Your task to perform on an android device: toggle pop-ups in chrome Image 0: 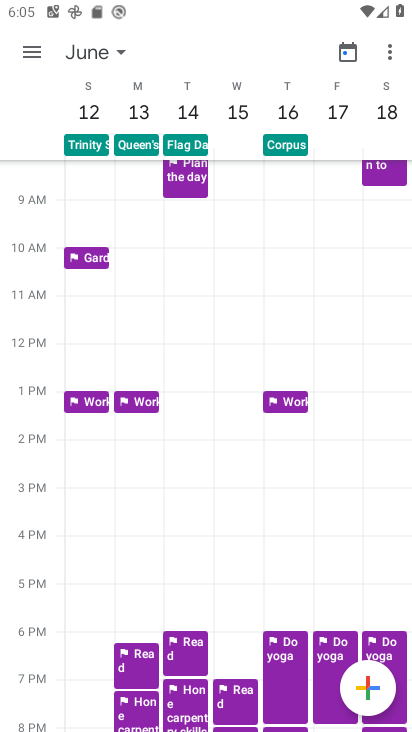
Step 0: press home button
Your task to perform on an android device: toggle pop-ups in chrome Image 1: 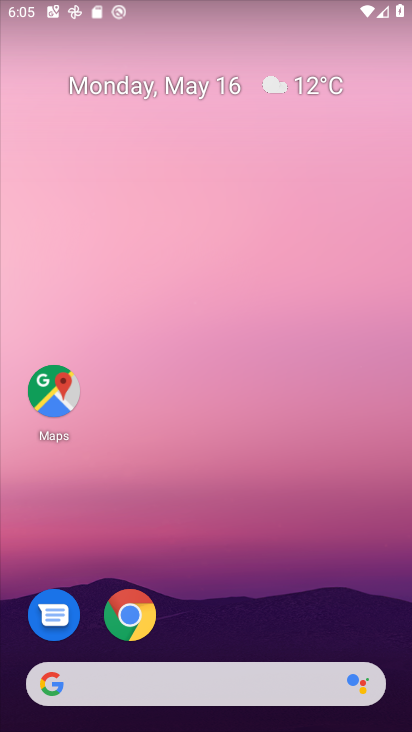
Step 1: drag from (266, 246) to (287, 156)
Your task to perform on an android device: toggle pop-ups in chrome Image 2: 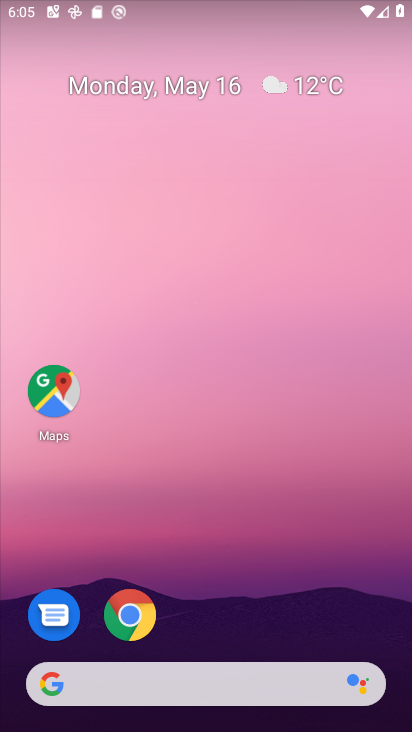
Step 2: click (136, 605)
Your task to perform on an android device: toggle pop-ups in chrome Image 3: 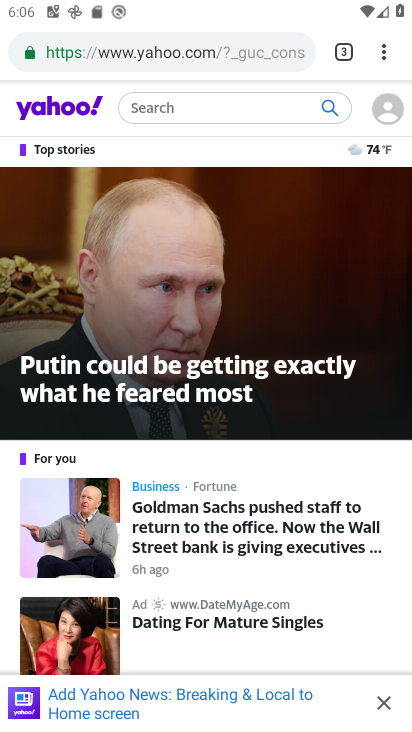
Step 3: click (394, 48)
Your task to perform on an android device: toggle pop-ups in chrome Image 4: 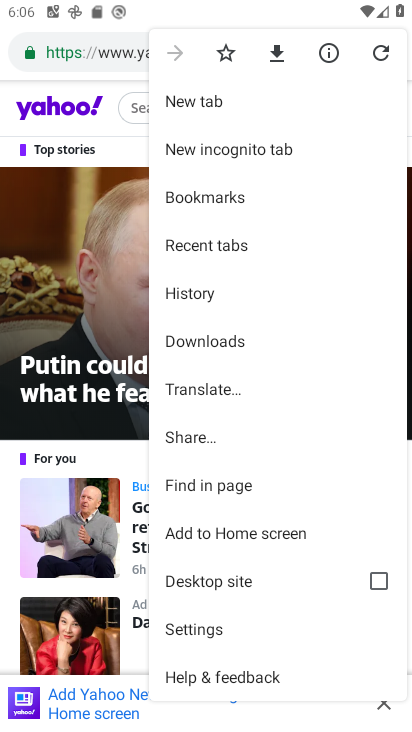
Step 4: click (202, 633)
Your task to perform on an android device: toggle pop-ups in chrome Image 5: 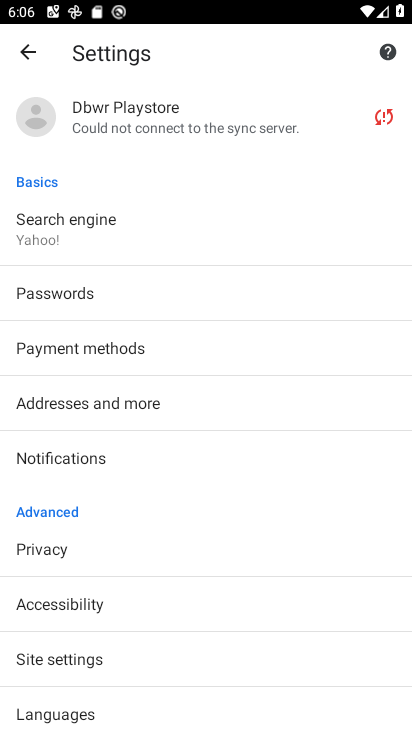
Step 5: click (80, 663)
Your task to perform on an android device: toggle pop-ups in chrome Image 6: 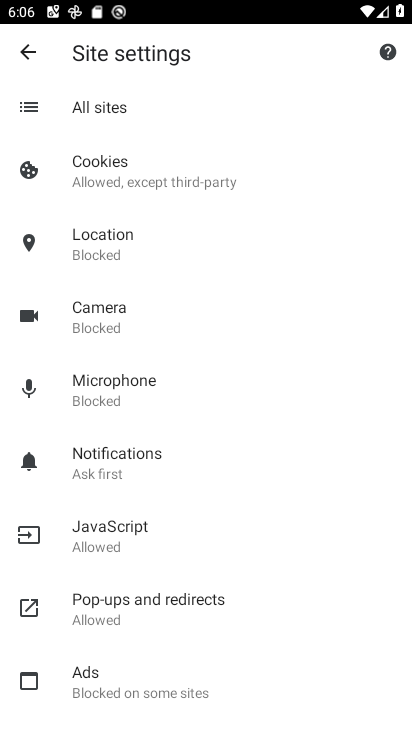
Step 6: click (139, 610)
Your task to perform on an android device: toggle pop-ups in chrome Image 7: 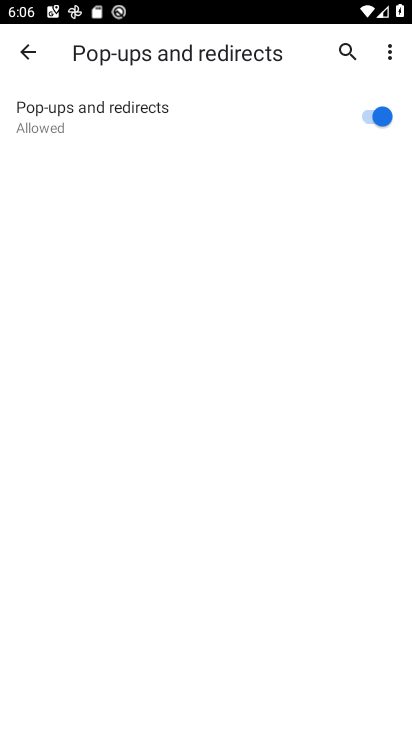
Step 7: click (371, 124)
Your task to perform on an android device: toggle pop-ups in chrome Image 8: 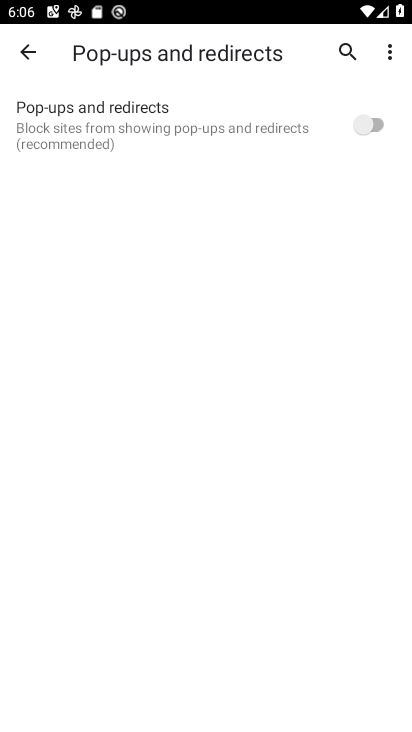
Step 8: task complete